Your task to perform on an android device: Clear the cart on newegg.com. Search for "logitech g903" on newegg.com, select the first entry, add it to the cart, then select checkout. Image 0: 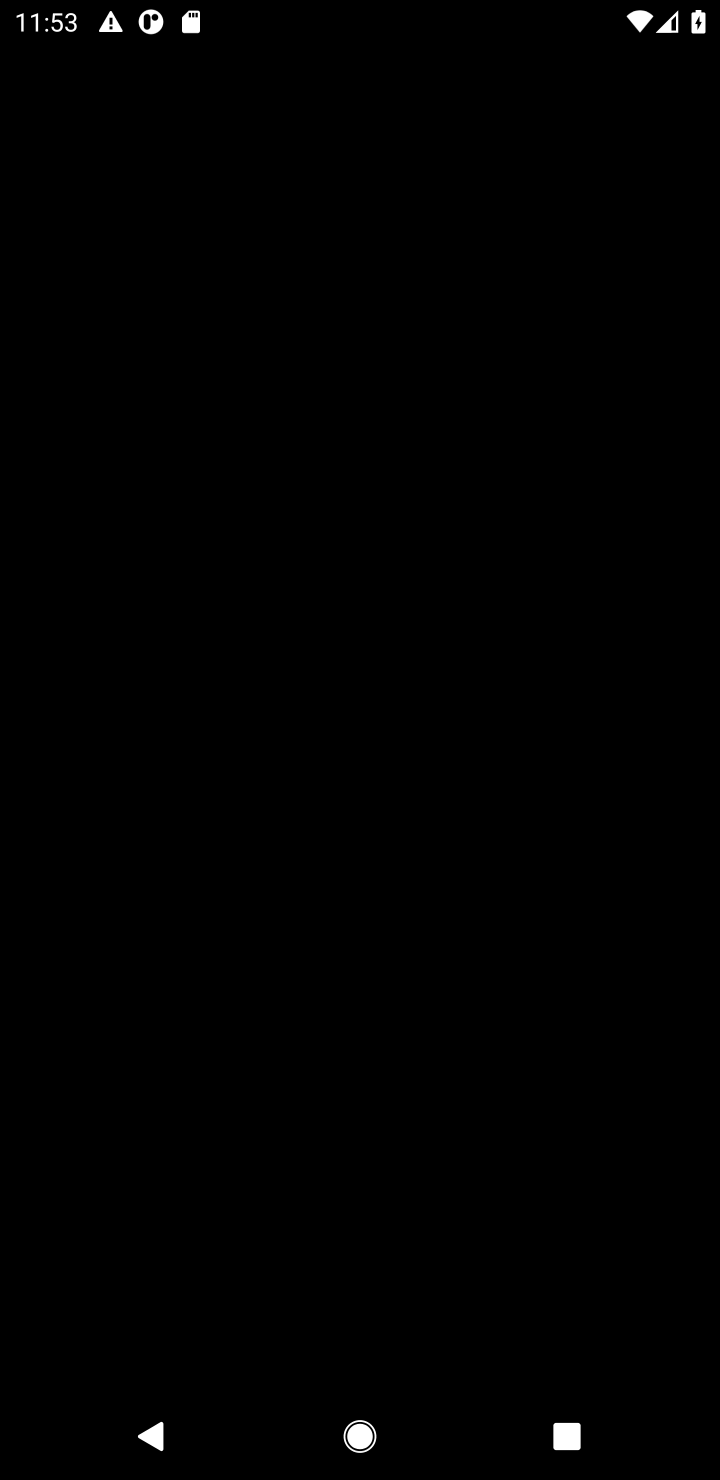
Step 0: press home button
Your task to perform on an android device: Clear the cart on newegg.com. Search for "logitech g903" on newegg.com, select the first entry, add it to the cart, then select checkout. Image 1: 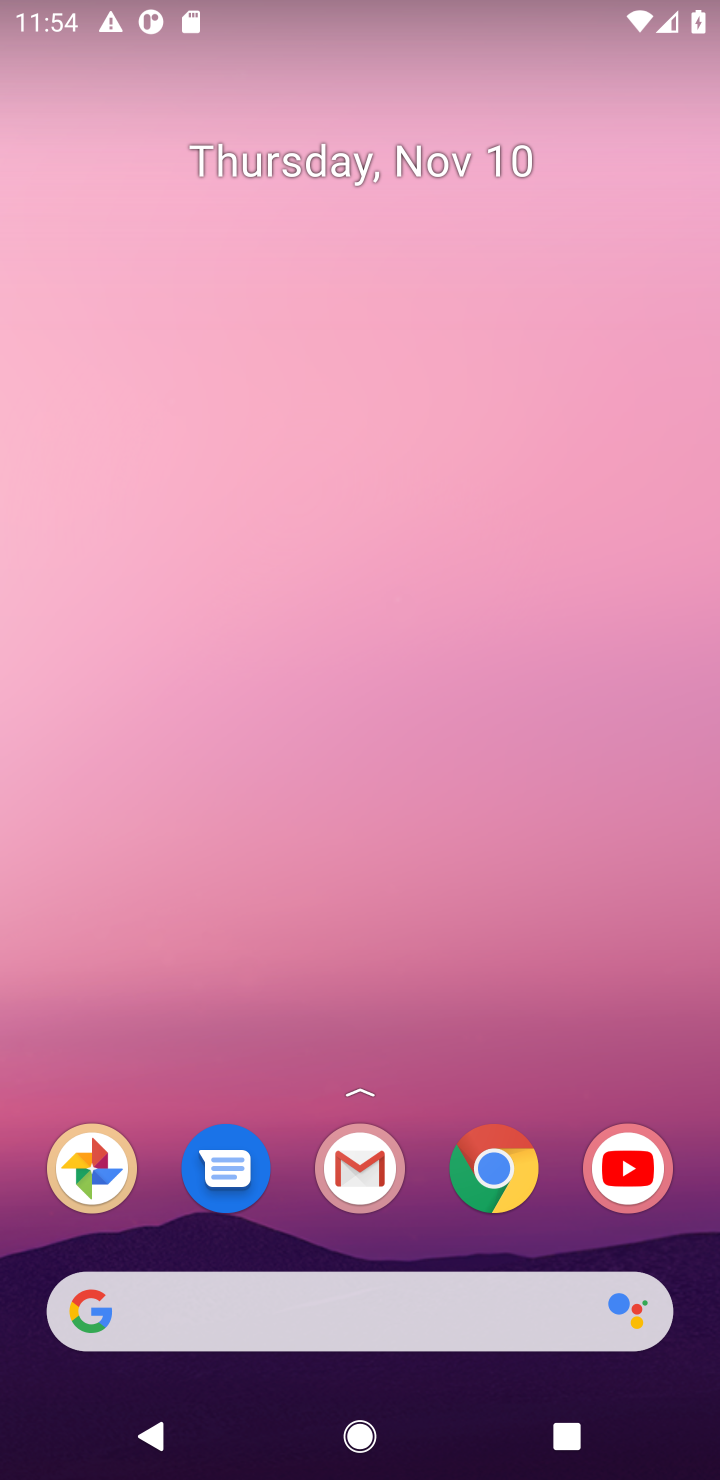
Step 1: click (495, 1164)
Your task to perform on an android device: Clear the cart on newegg.com. Search for "logitech g903" on newegg.com, select the first entry, add it to the cart, then select checkout. Image 2: 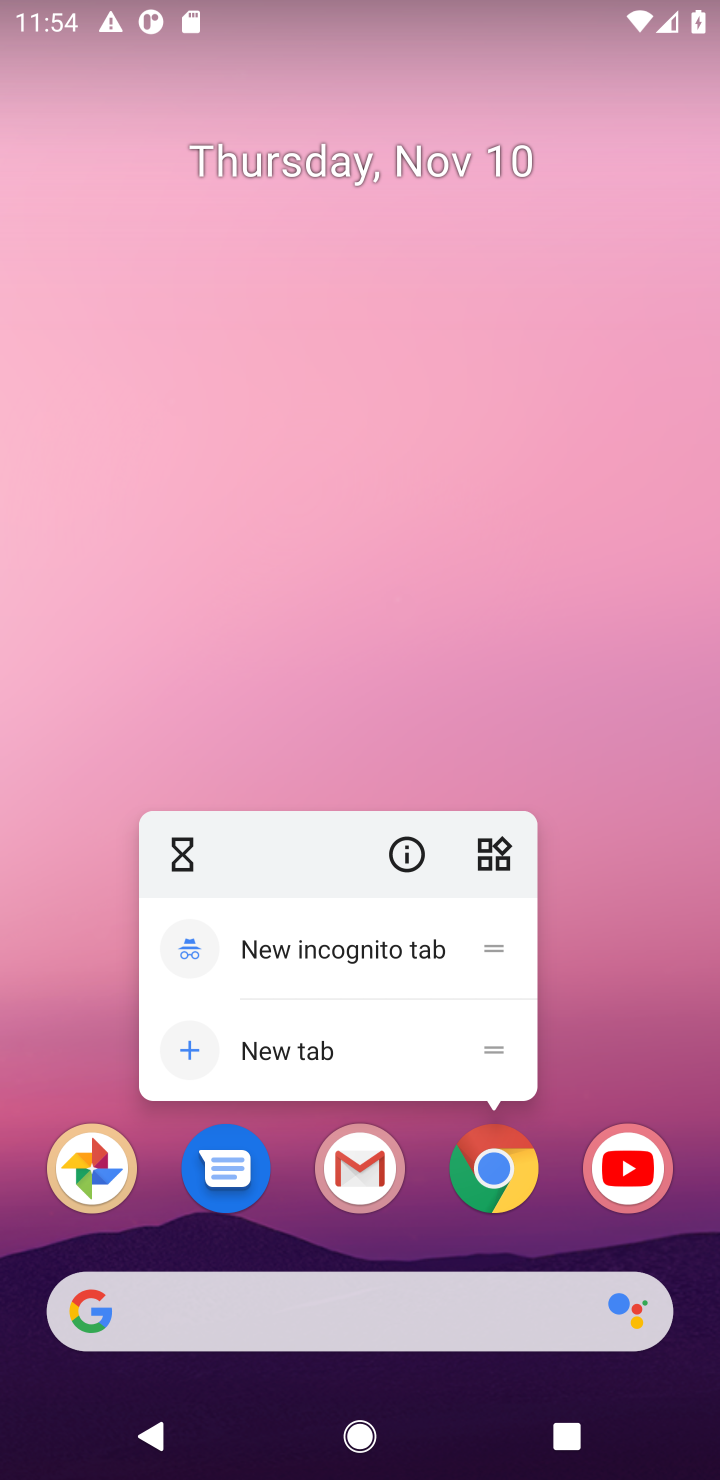
Step 2: click (491, 1175)
Your task to perform on an android device: Clear the cart on newegg.com. Search for "logitech g903" on newegg.com, select the first entry, add it to the cart, then select checkout. Image 3: 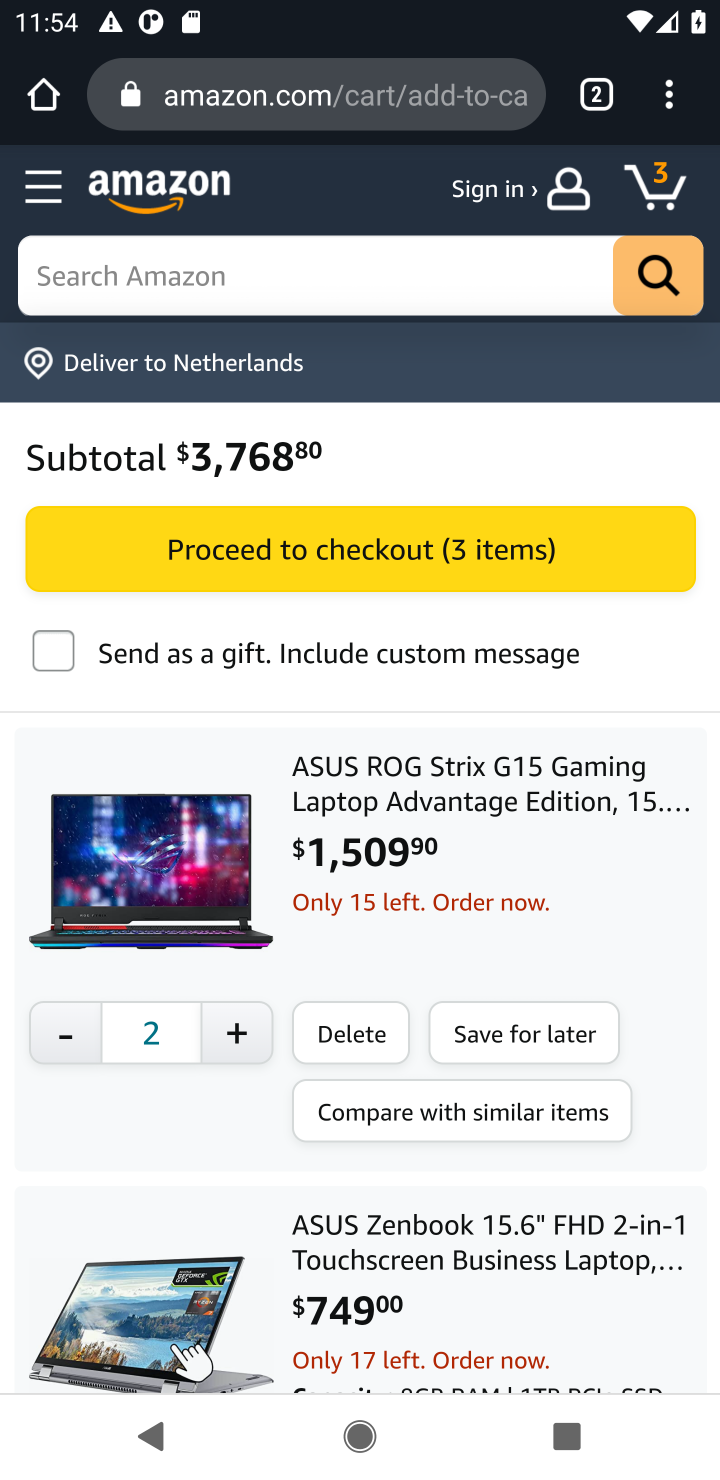
Step 3: click (259, 107)
Your task to perform on an android device: Clear the cart on newegg.com. Search for "logitech g903" on newegg.com, select the first entry, add it to the cart, then select checkout. Image 4: 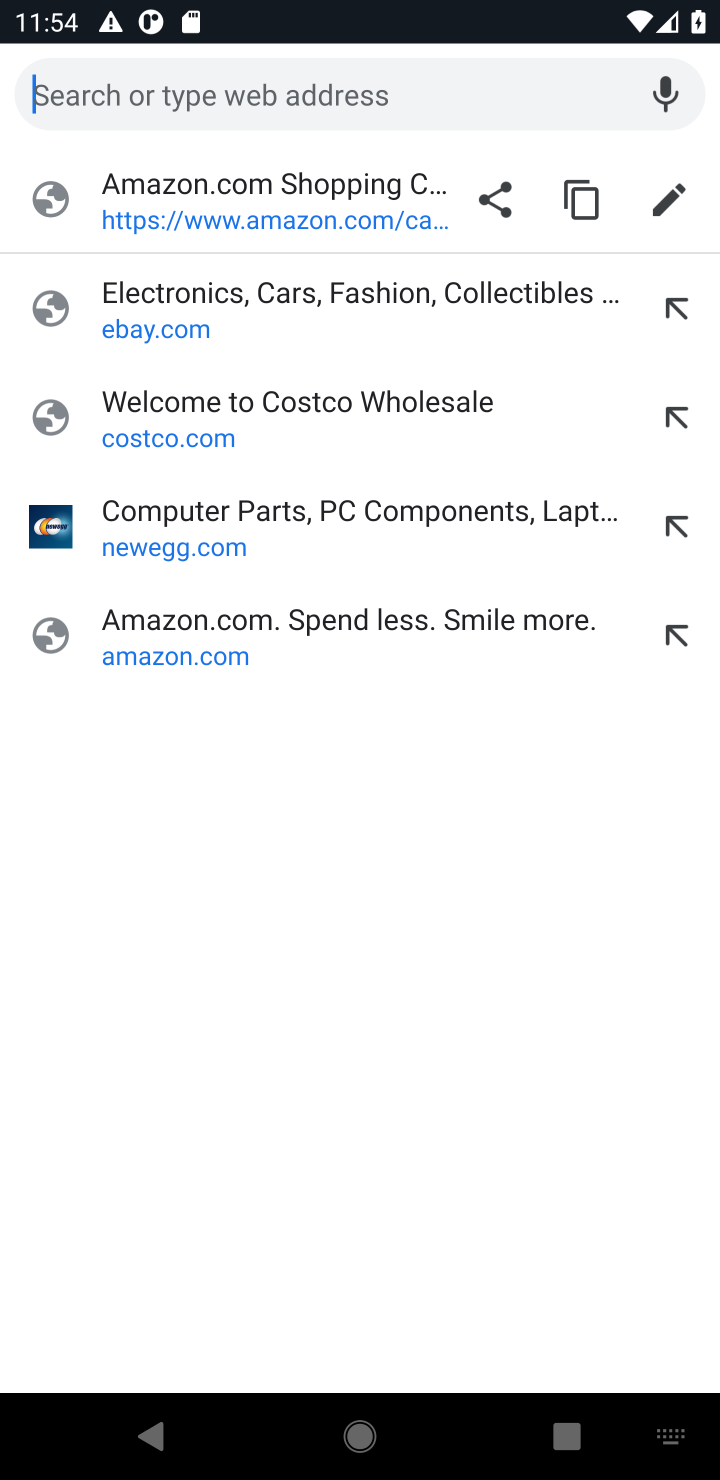
Step 4: click (168, 519)
Your task to perform on an android device: Clear the cart on newegg.com. Search for "logitech g903" on newegg.com, select the first entry, add it to the cart, then select checkout. Image 5: 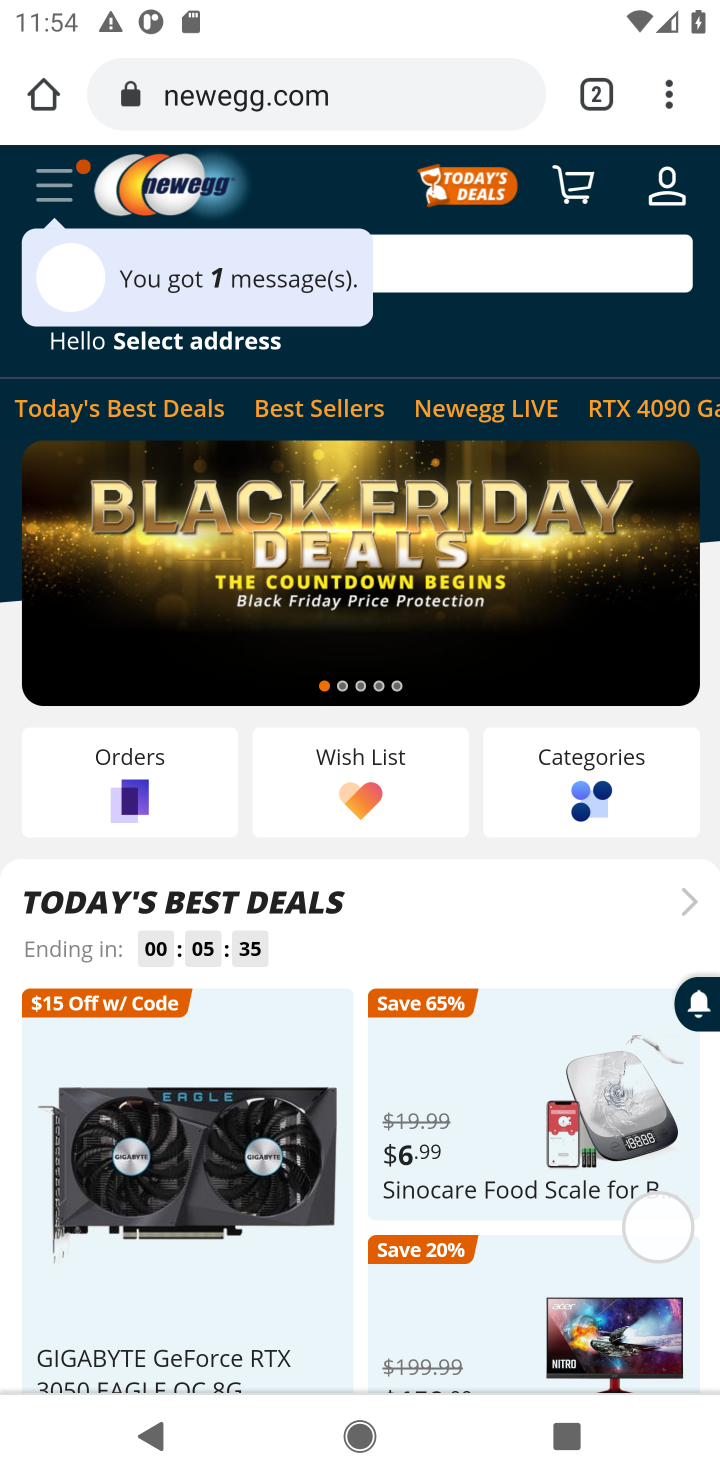
Step 5: click (577, 201)
Your task to perform on an android device: Clear the cart on newegg.com. Search for "logitech g903" on newegg.com, select the first entry, add it to the cart, then select checkout. Image 6: 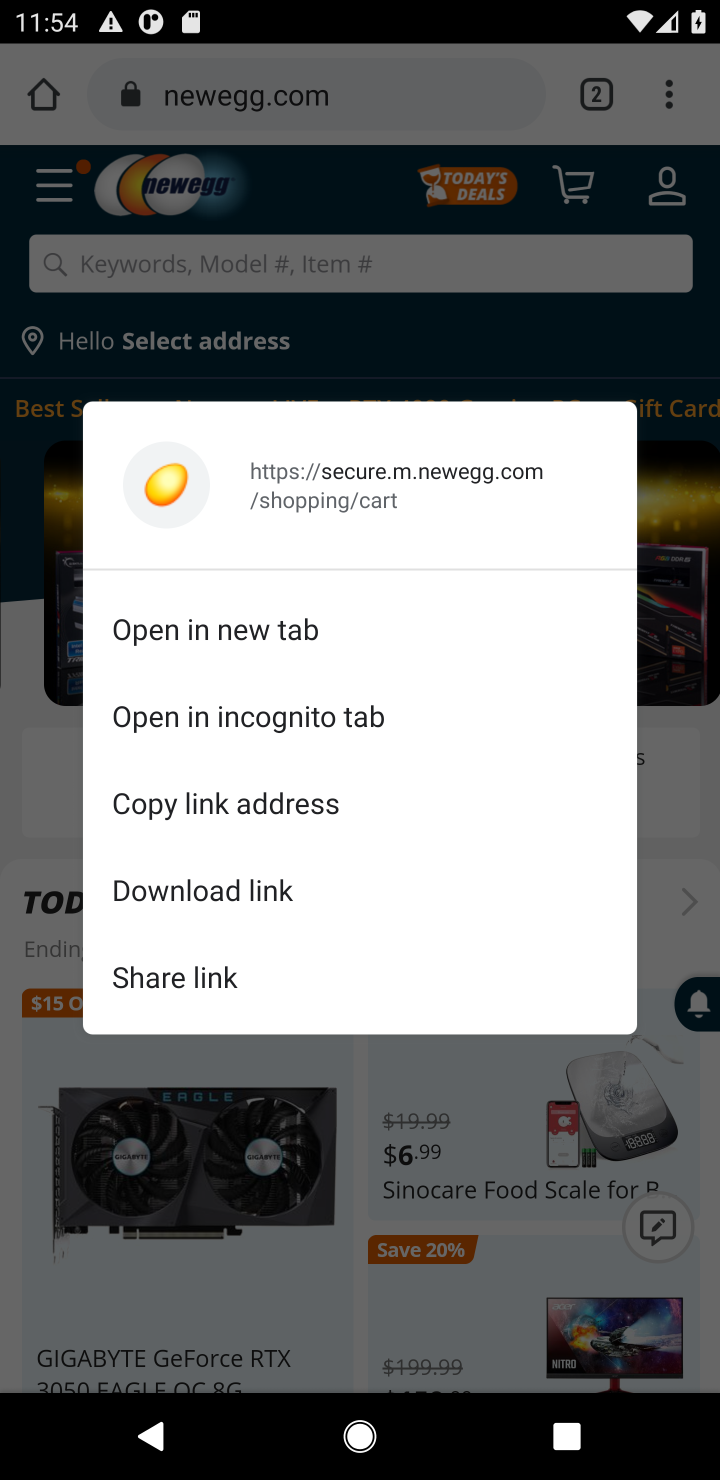
Step 6: click (577, 201)
Your task to perform on an android device: Clear the cart on newegg.com. Search for "logitech g903" on newegg.com, select the first entry, add it to the cart, then select checkout. Image 7: 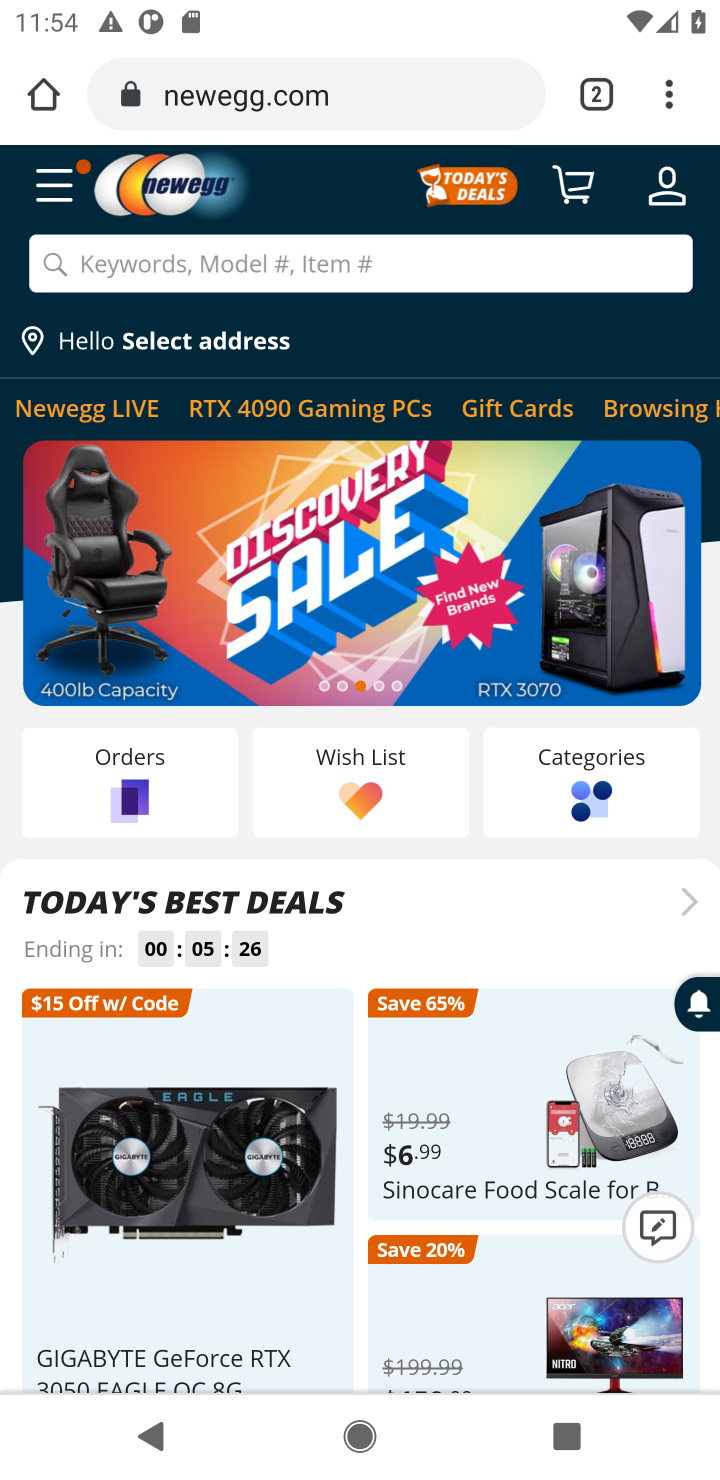
Step 7: click (577, 196)
Your task to perform on an android device: Clear the cart on newegg.com. Search for "logitech g903" on newegg.com, select the first entry, add it to the cart, then select checkout. Image 8: 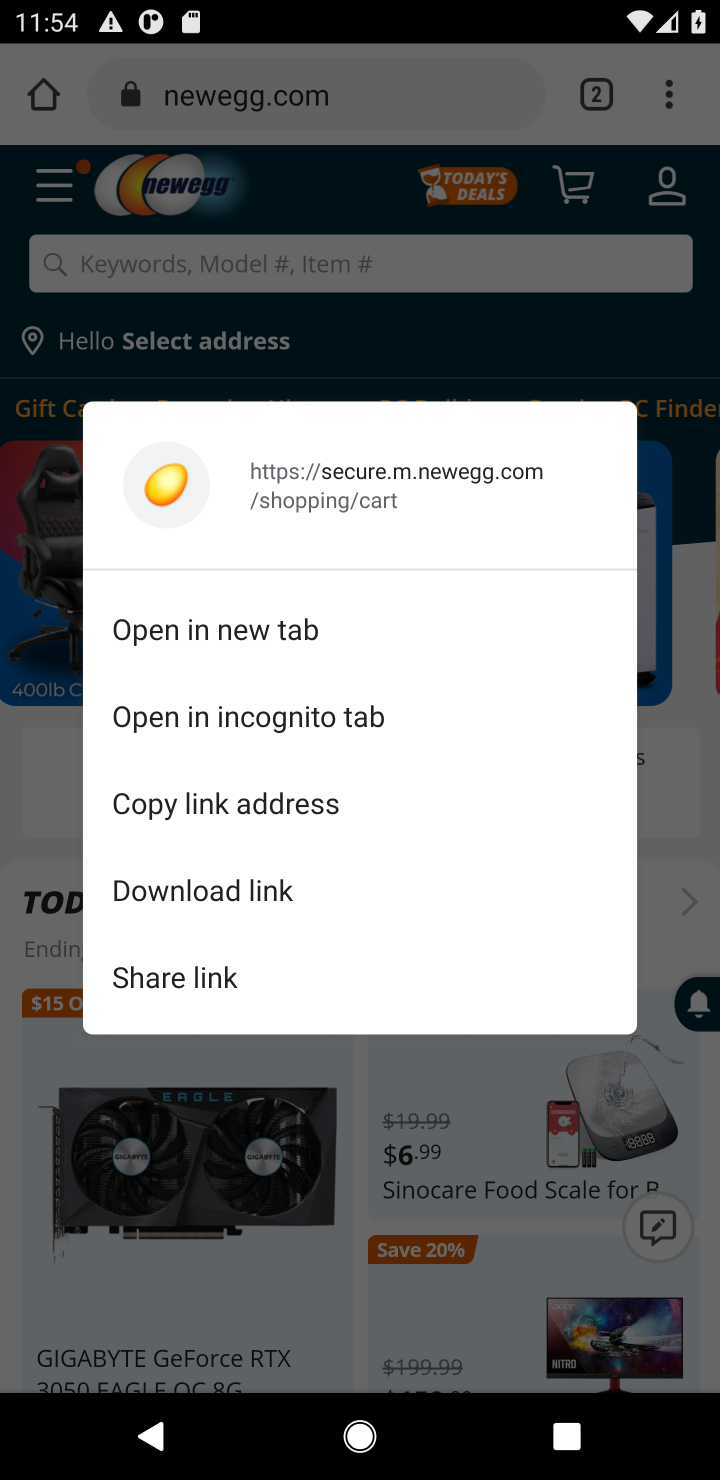
Step 8: click (566, 326)
Your task to perform on an android device: Clear the cart on newegg.com. Search for "logitech g903" on newegg.com, select the first entry, add it to the cart, then select checkout. Image 9: 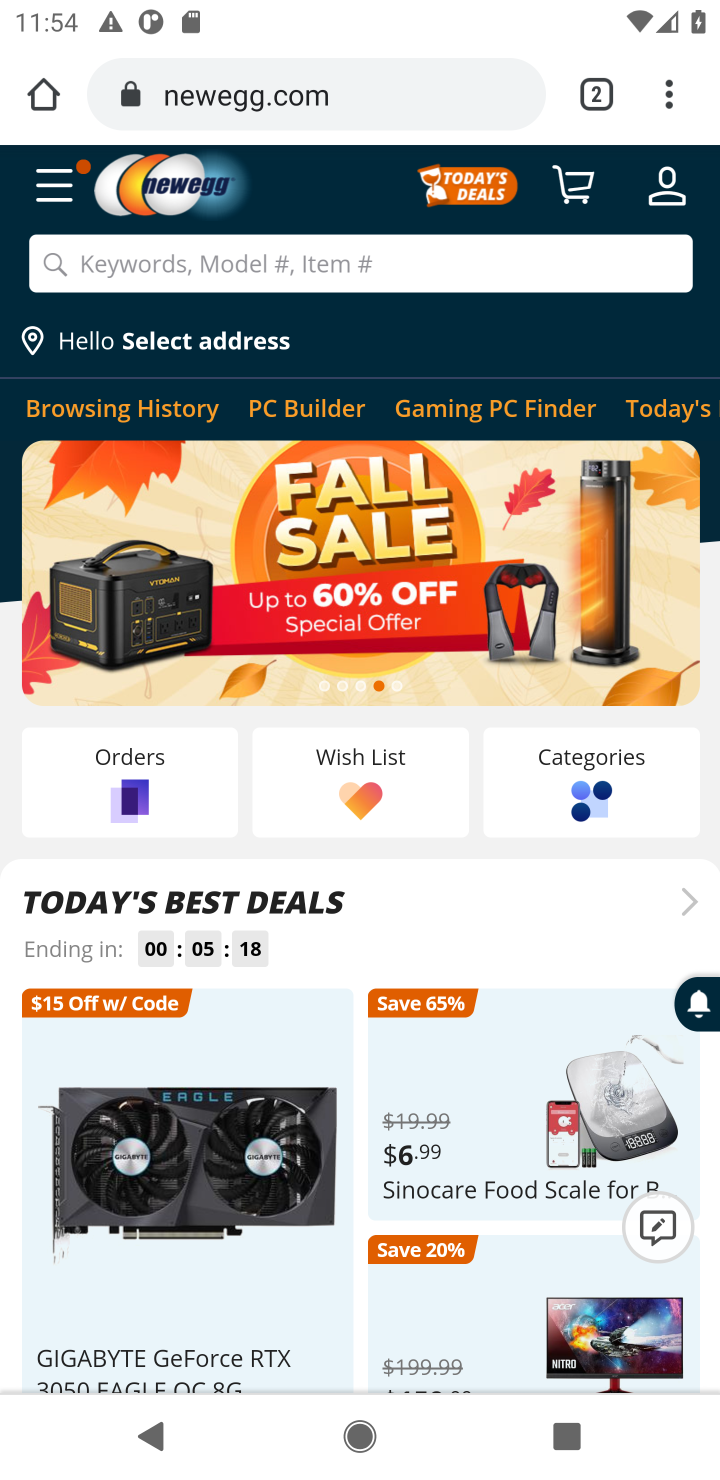
Step 9: click (587, 190)
Your task to perform on an android device: Clear the cart on newegg.com. Search for "logitech g903" on newegg.com, select the first entry, add it to the cart, then select checkout. Image 10: 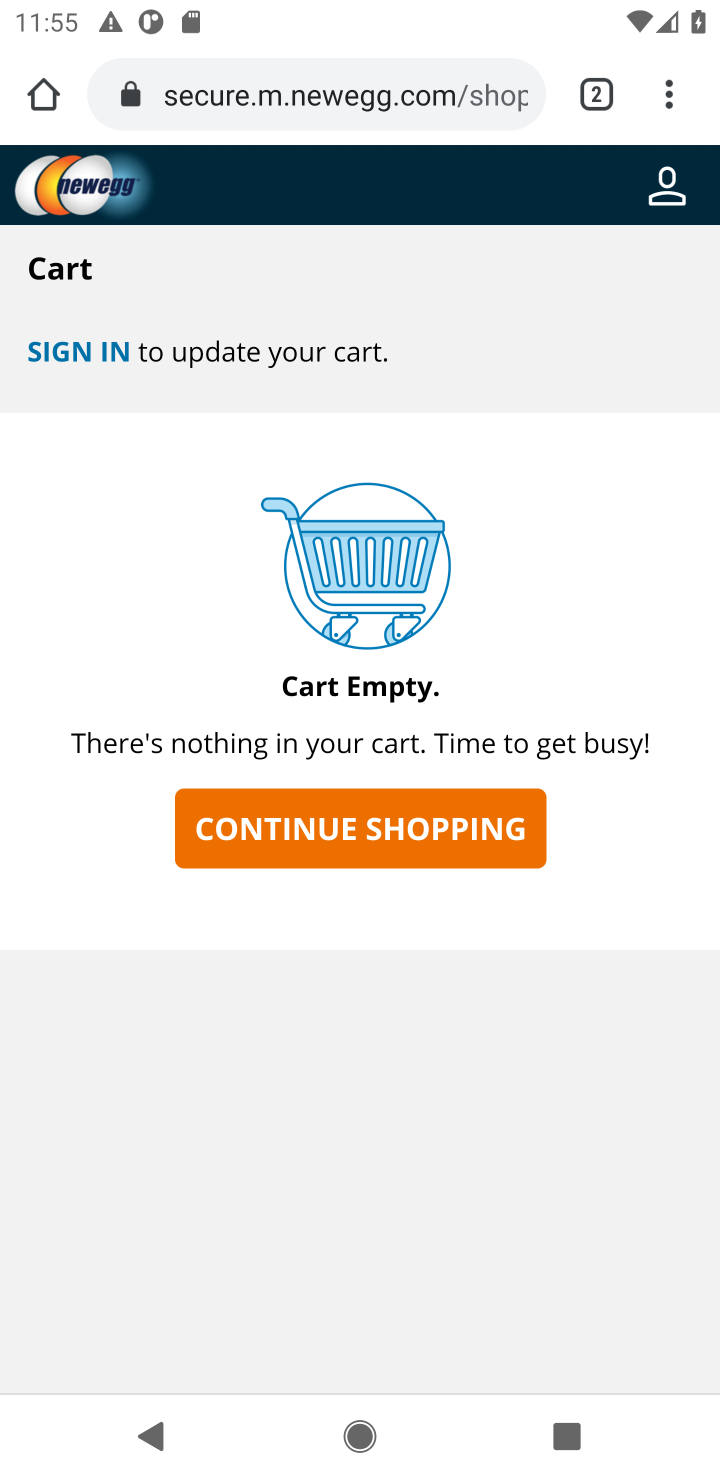
Step 10: click (368, 832)
Your task to perform on an android device: Clear the cart on newegg.com. Search for "logitech g903" on newegg.com, select the first entry, add it to the cart, then select checkout. Image 11: 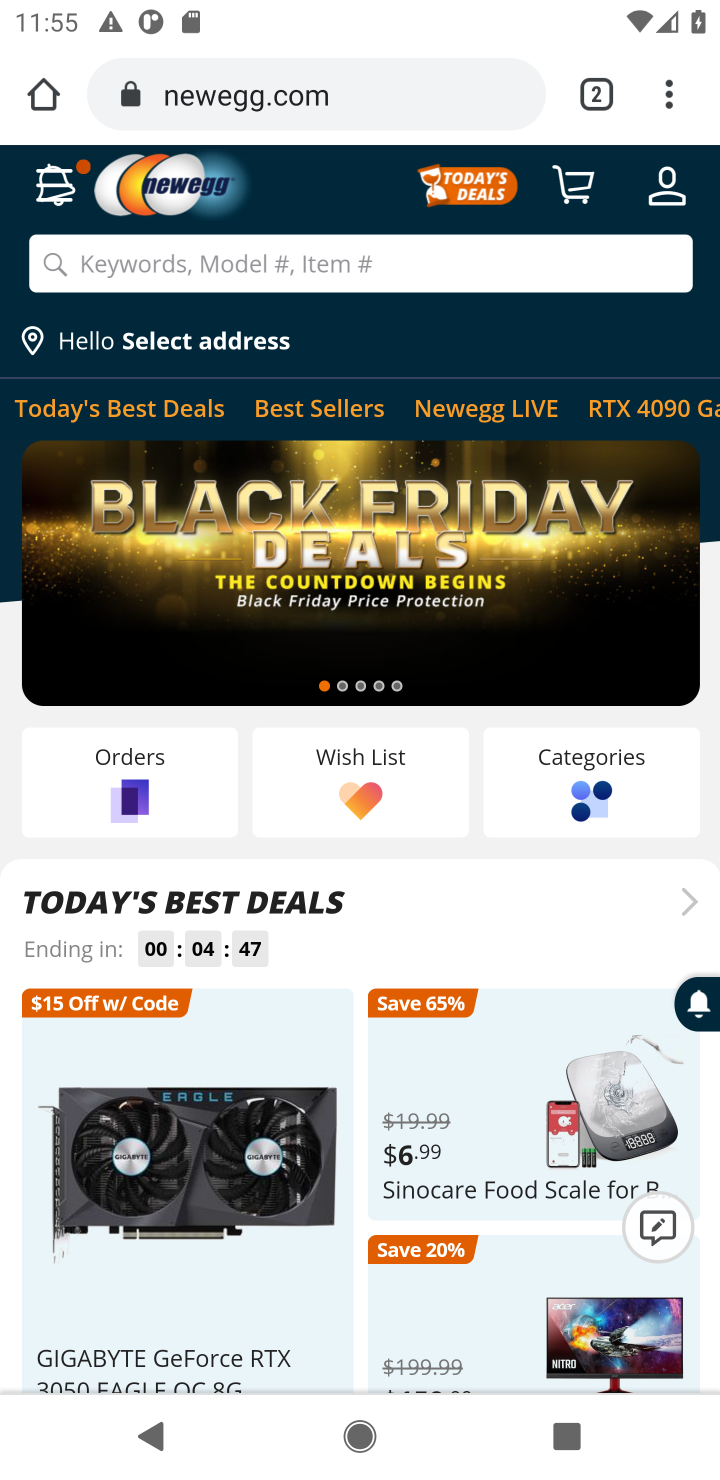
Step 11: click (448, 265)
Your task to perform on an android device: Clear the cart on newegg.com. Search for "logitech g903" on newegg.com, select the first entry, add it to the cart, then select checkout. Image 12: 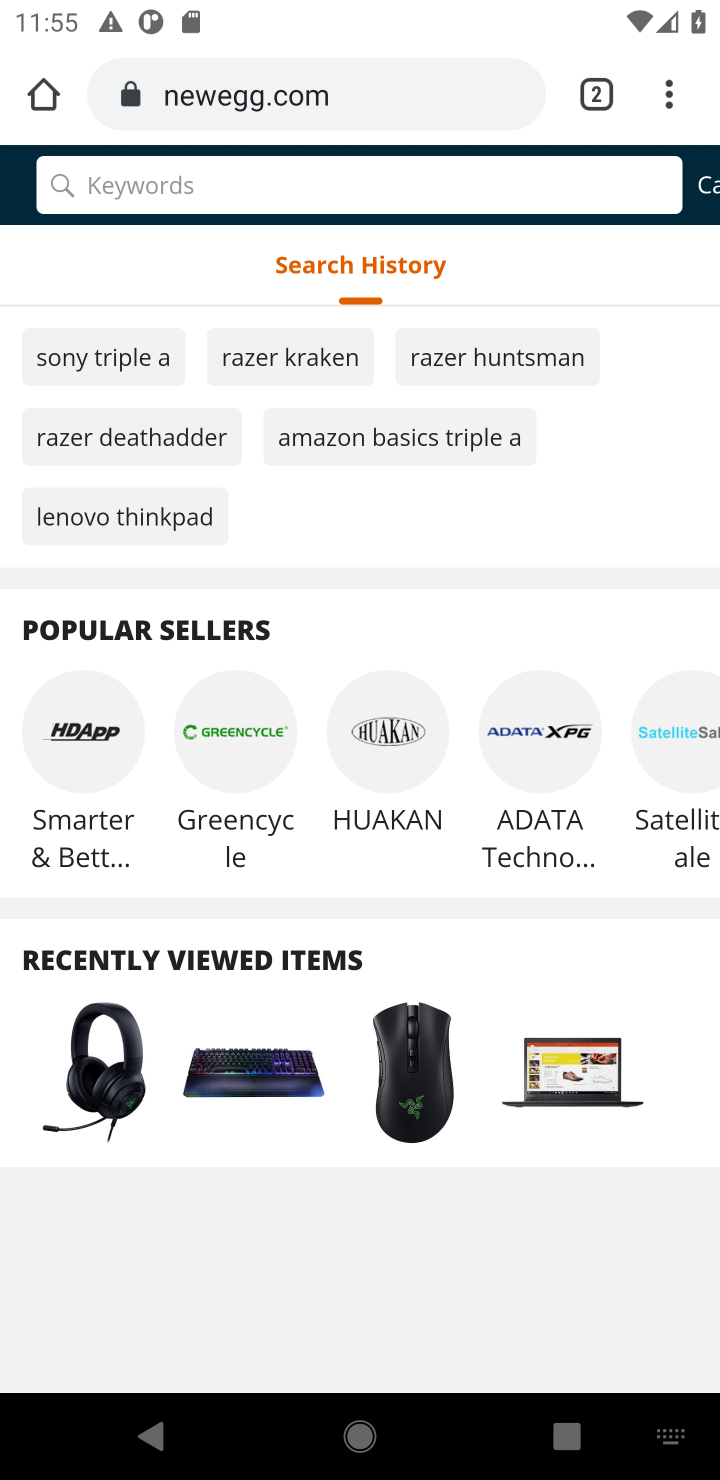
Step 12: click (448, 265)
Your task to perform on an android device: Clear the cart on newegg.com. Search for "logitech g903" on newegg.com, select the first entry, add it to the cart, then select checkout. Image 13: 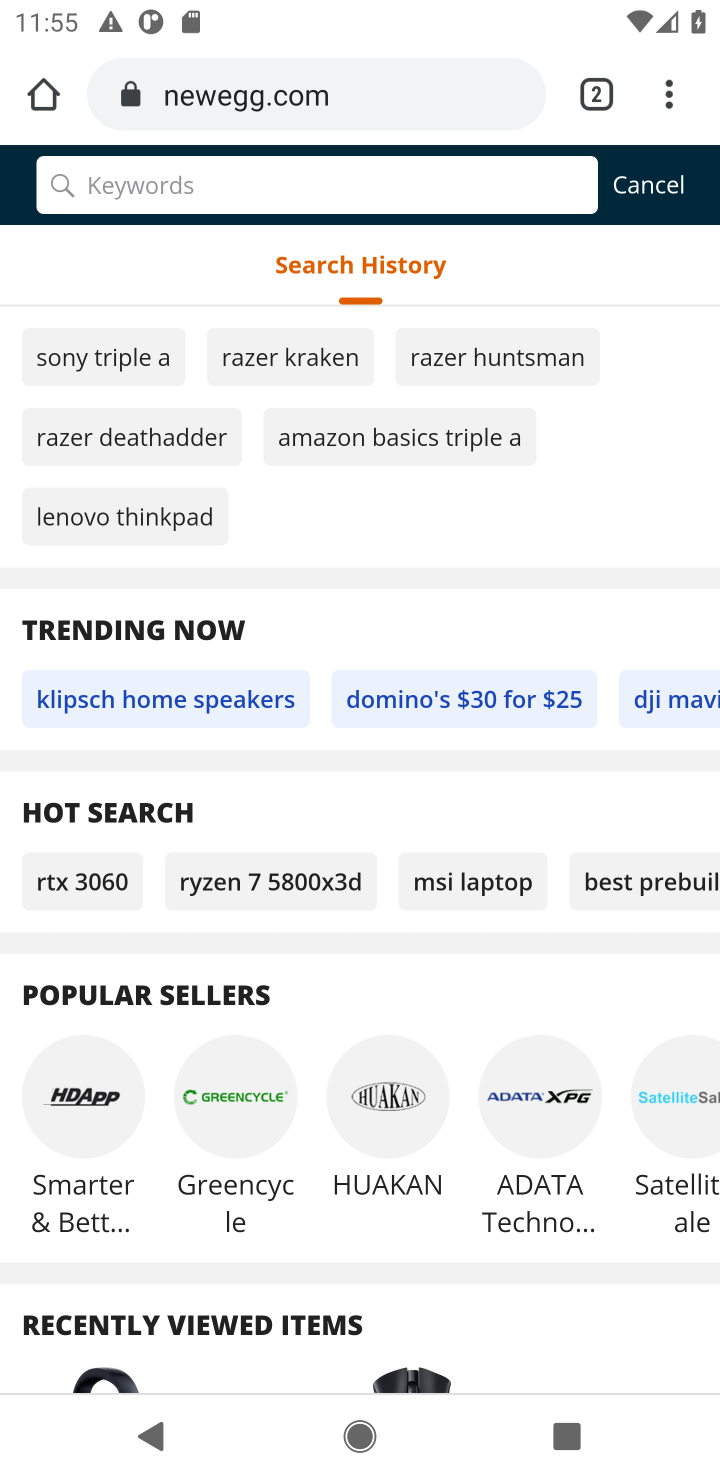
Step 13: type "logitech g903"
Your task to perform on an android device: Clear the cart on newegg.com. Search for "logitech g903" on newegg.com, select the first entry, add it to the cart, then select checkout. Image 14: 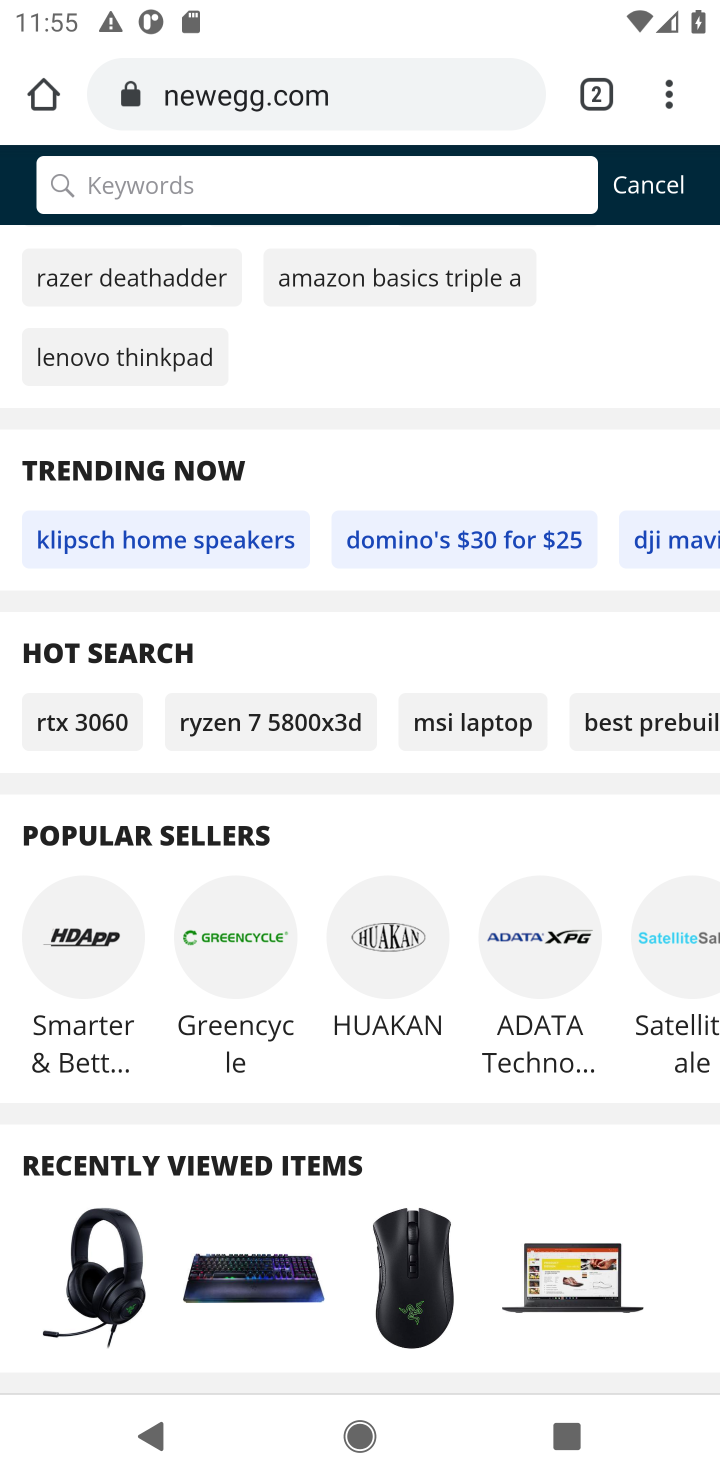
Step 14: click (123, 187)
Your task to perform on an android device: Clear the cart on newegg.com. Search for "logitech g903" on newegg.com, select the first entry, add it to the cart, then select checkout. Image 15: 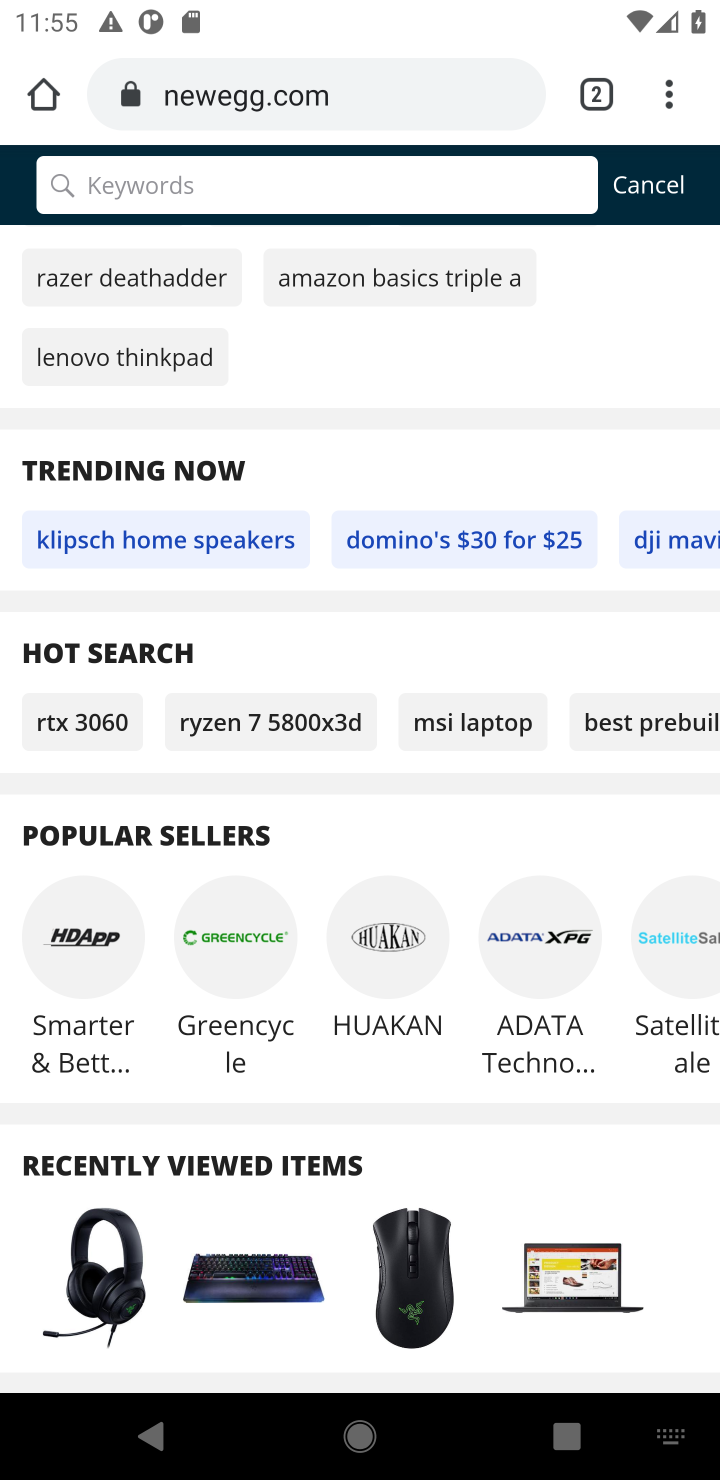
Step 15: type "logitech g903"
Your task to perform on an android device: Clear the cart on newegg.com. Search for "logitech g903" on newegg.com, select the first entry, add it to the cart, then select checkout. Image 16: 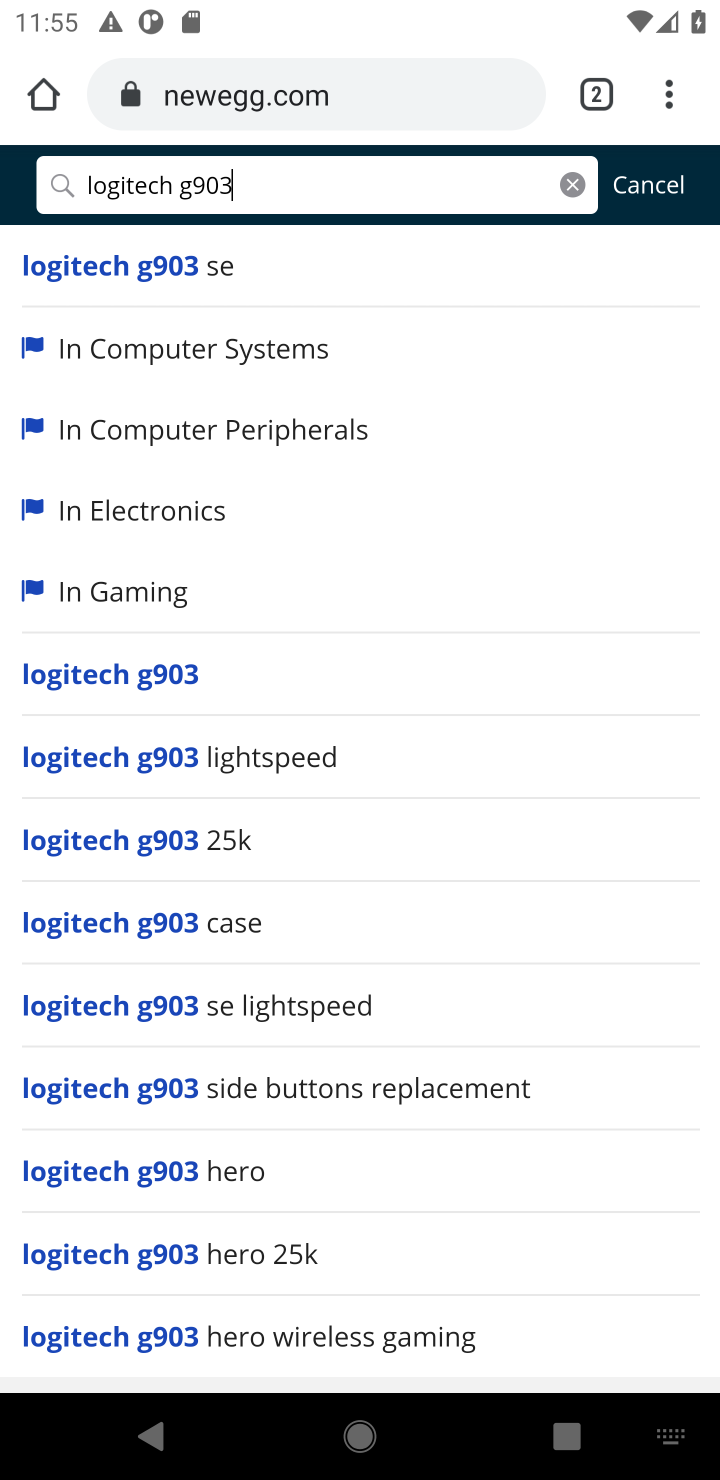
Step 16: click (150, 674)
Your task to perform on an android device: Clear the cart on newegg.com. Search for "logitech g903" on newegg.com, select the first entry, add it to the cart, then select checkout. Image 17: 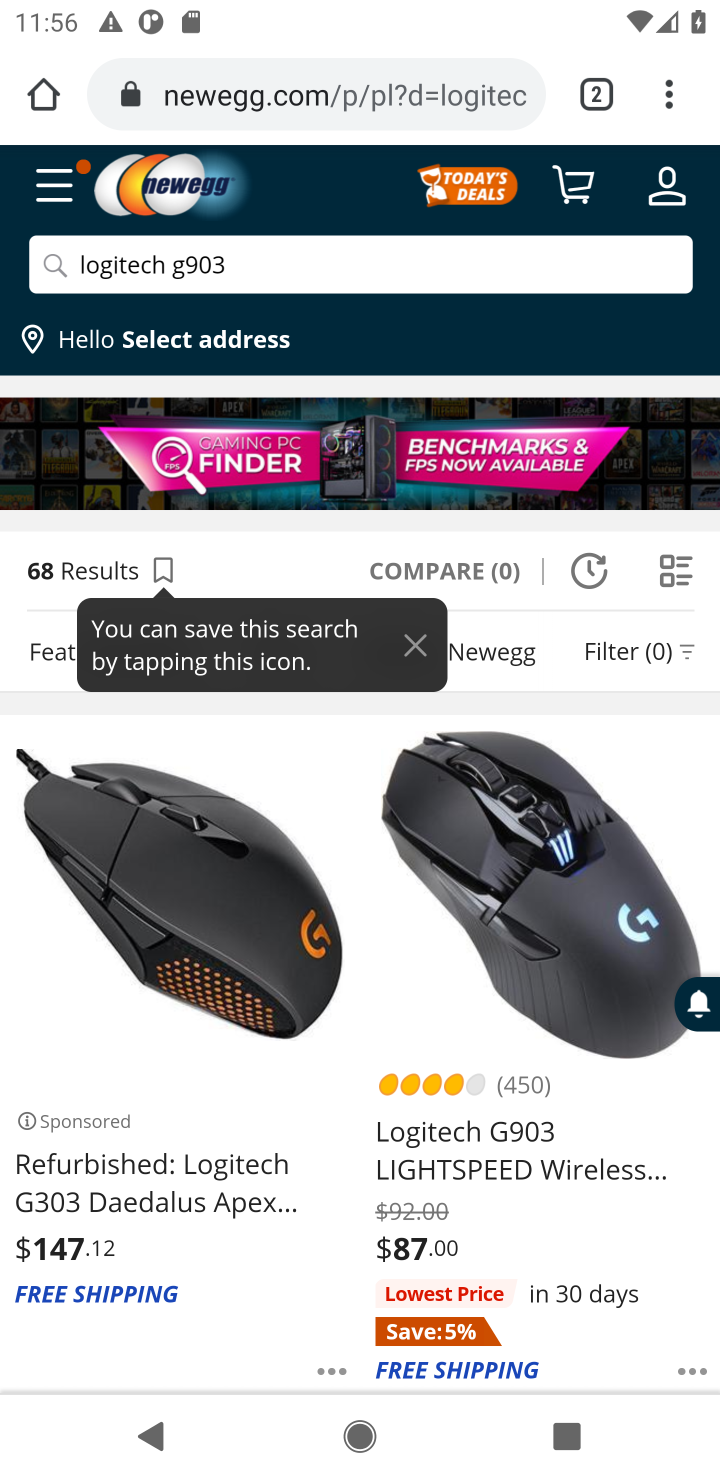
Step 17: task complete